Your task to perform on an android device: See recent photos Image 0: 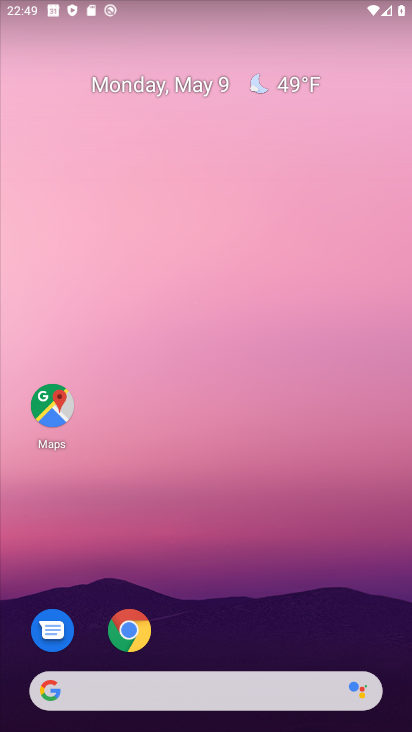
Step 0: drag from (200, 453) to (194, 92)
Your task to perform on an android device: See recent photos Image 1: 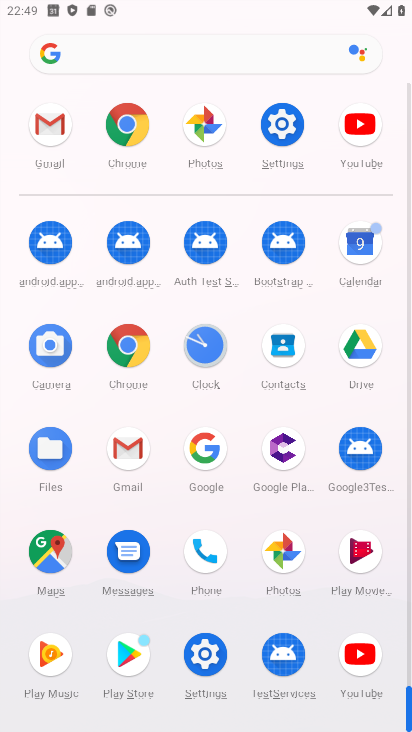
Step 1: click (211, 134)
Your task to perform on an android device: See recent photos Image 2: 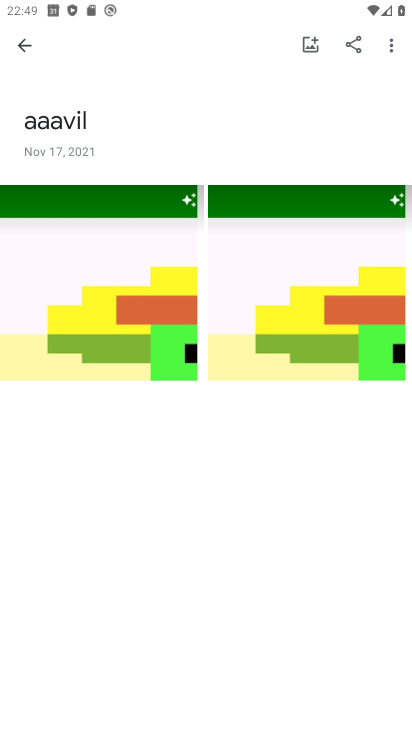
Step 2: click (27, 30)
Your task to perform on an android device: See recent photos Image 3: 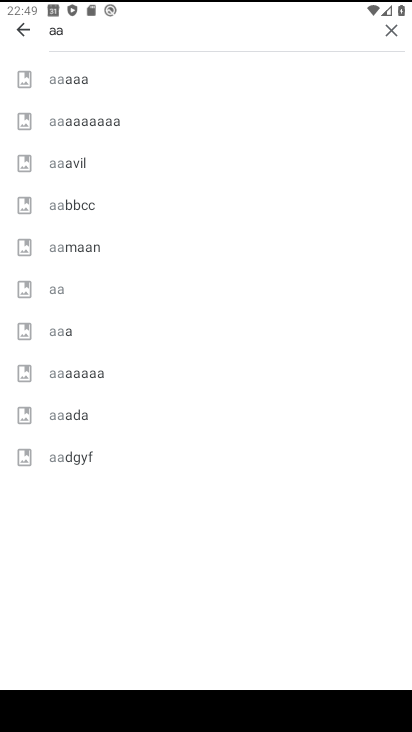
Step 3: click (19, 30)
Your task to perform on an android device: See recent photos Image 4: 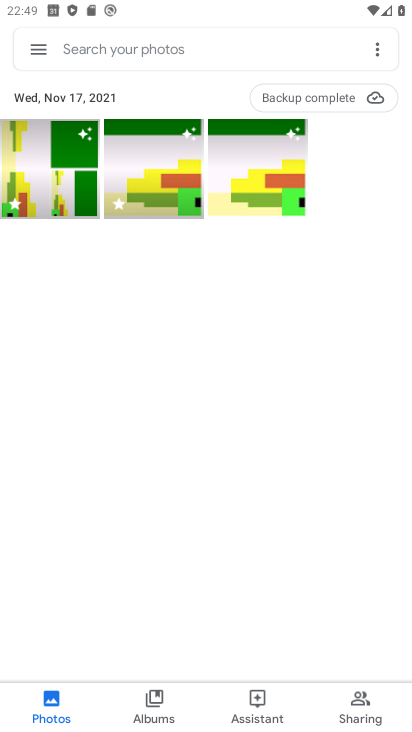
Step 4: click (51, 705)
Your task to perform on an android device: See recent photos Image 5: 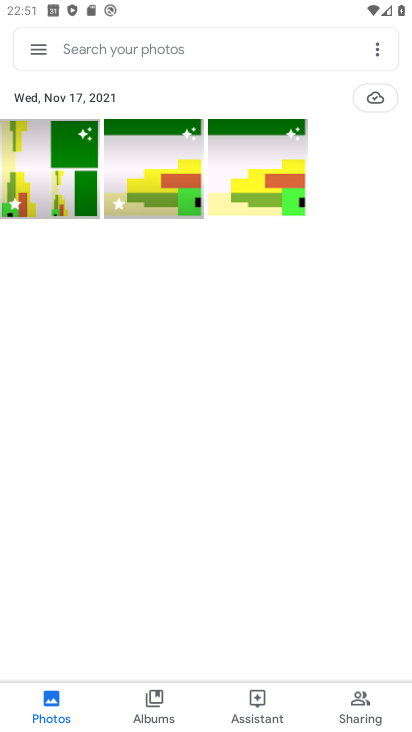
Step 5: task complete